Your task to perform on an android device: Clear the cart on costco.com. Search for "logitech g pro" on costco.com, select the first entry, add it to the cart, then select checkout. Image 0: 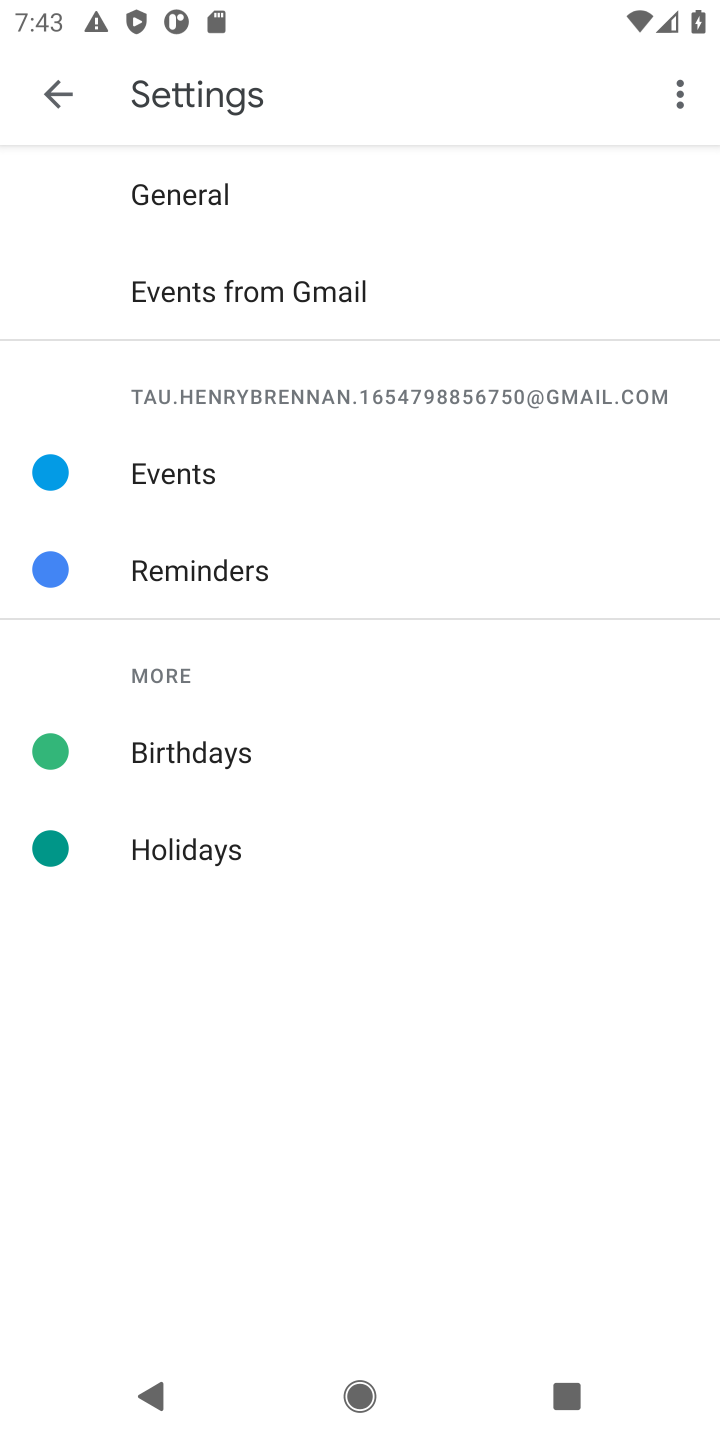
Step 0: press home button
Your task to perform on an android device: Clear the cart on costco.com. Search for "logitech g pro" on costco.com, select the first entry, add it to the cart, then select checkout. Image 1: 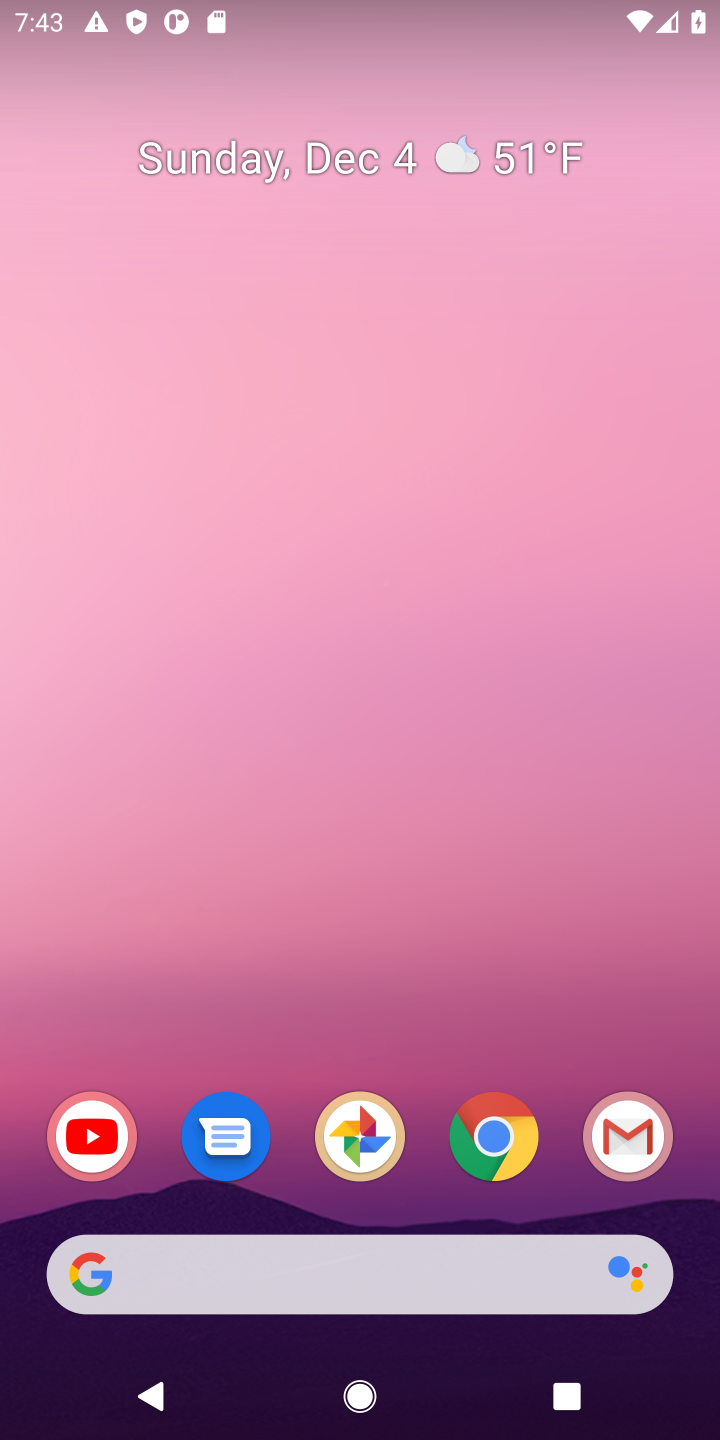
Step 1: click (488, 1130)
Your task to perform on an android device: Clear the cart on costco.com. Search for "logitech g pro" on costco.com, select the first entry, add it to the cart, then select checkout. Image 2: 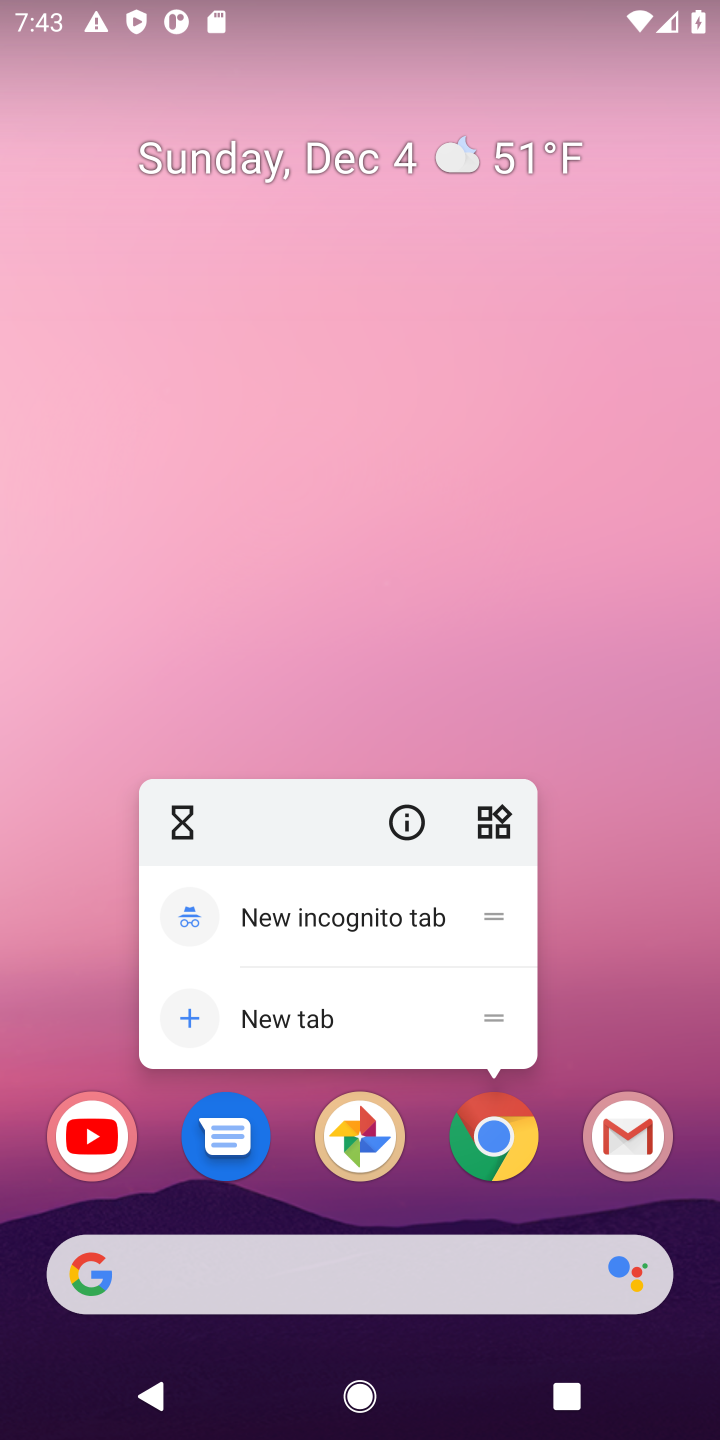
Step 2: click (488, 1132)
Your task to perform on an android device: Clear the cart on costco.com. Search for "logitech g pro" on costco.com, select the first entry, add it to the cart, then select checkout. Image 3: 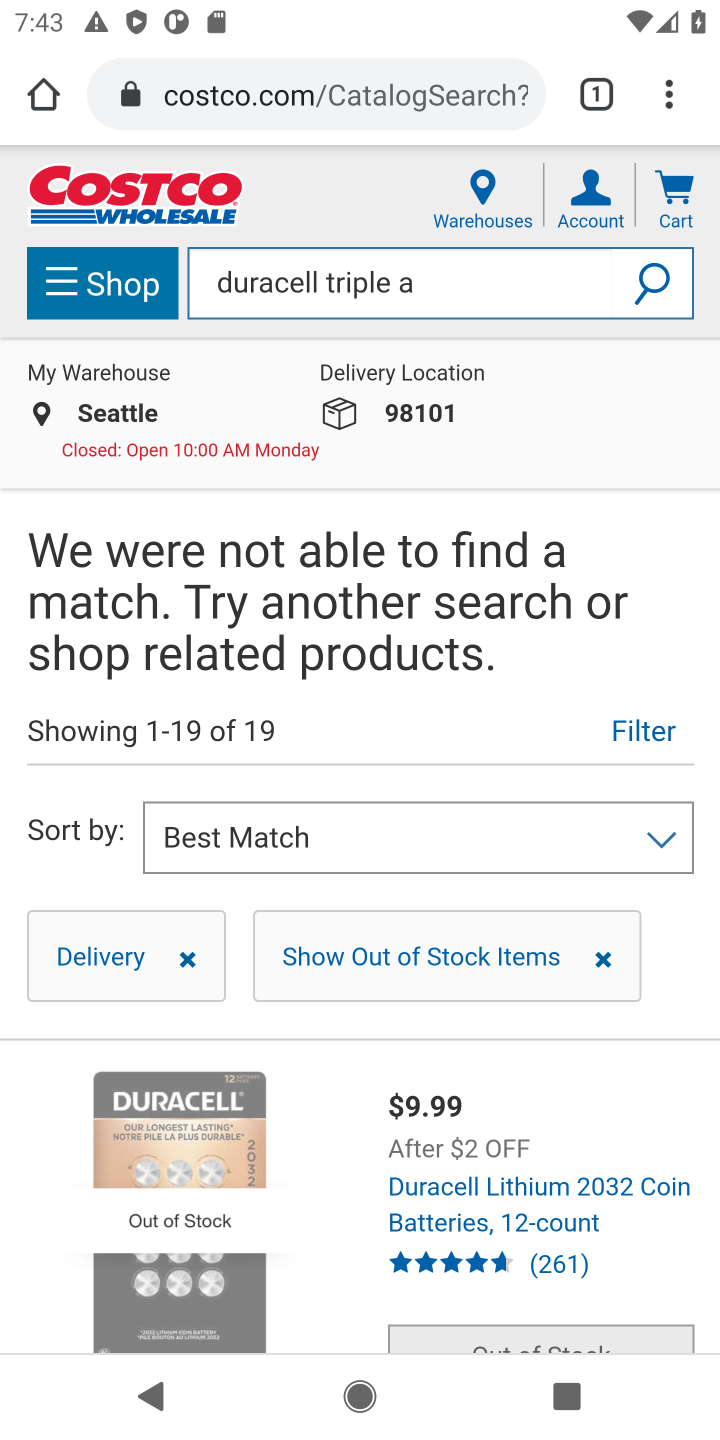
Step 3: click (677, 192)
Your task to perform on an android device: Clear the cart on costco.com. Search for "logitech g pro" on costco.com, select the first entry, add it to the cart, then select checkout. Image 4: 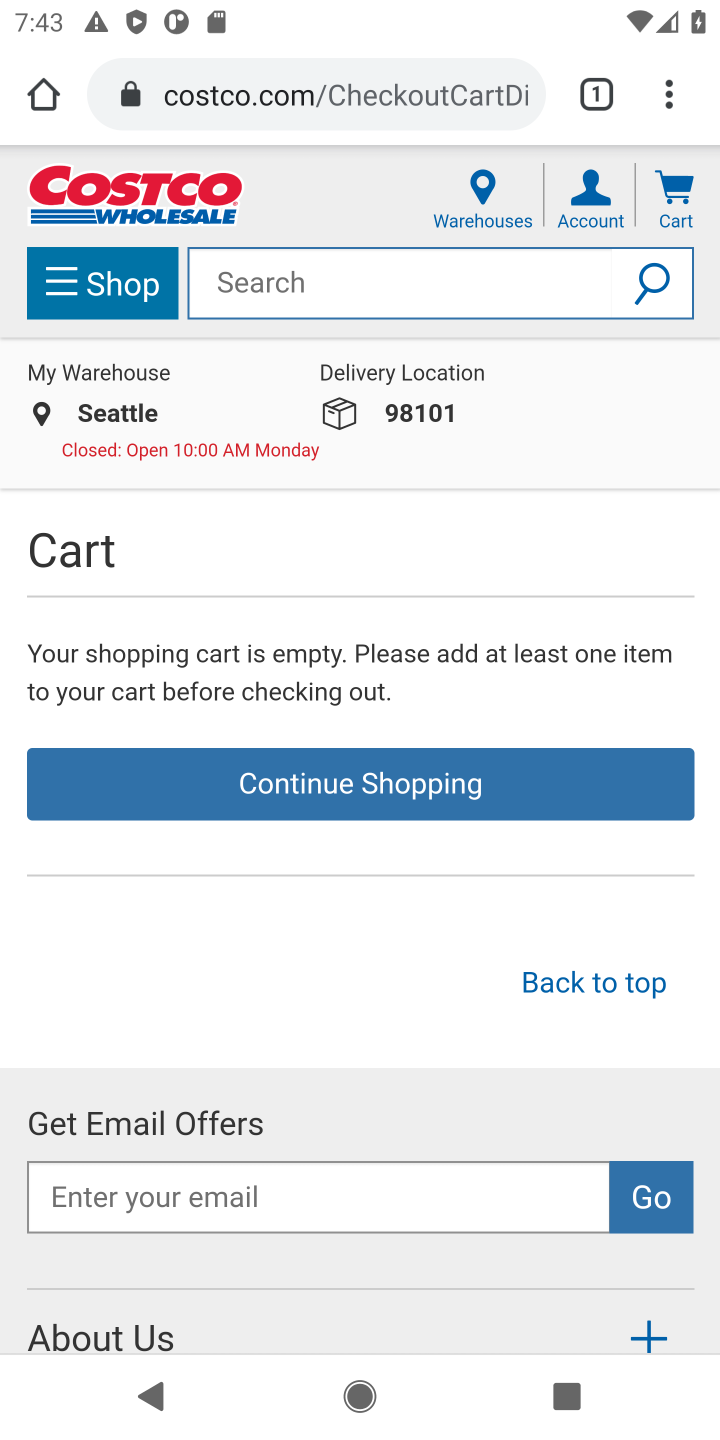
Step 4: click (524, 278)
Your task to perform on an android device: Clear the cart on costco.com. Search for "logitech g pro" on costco.com, select the first entry, add it to the cart, then select checkout. Image 5: 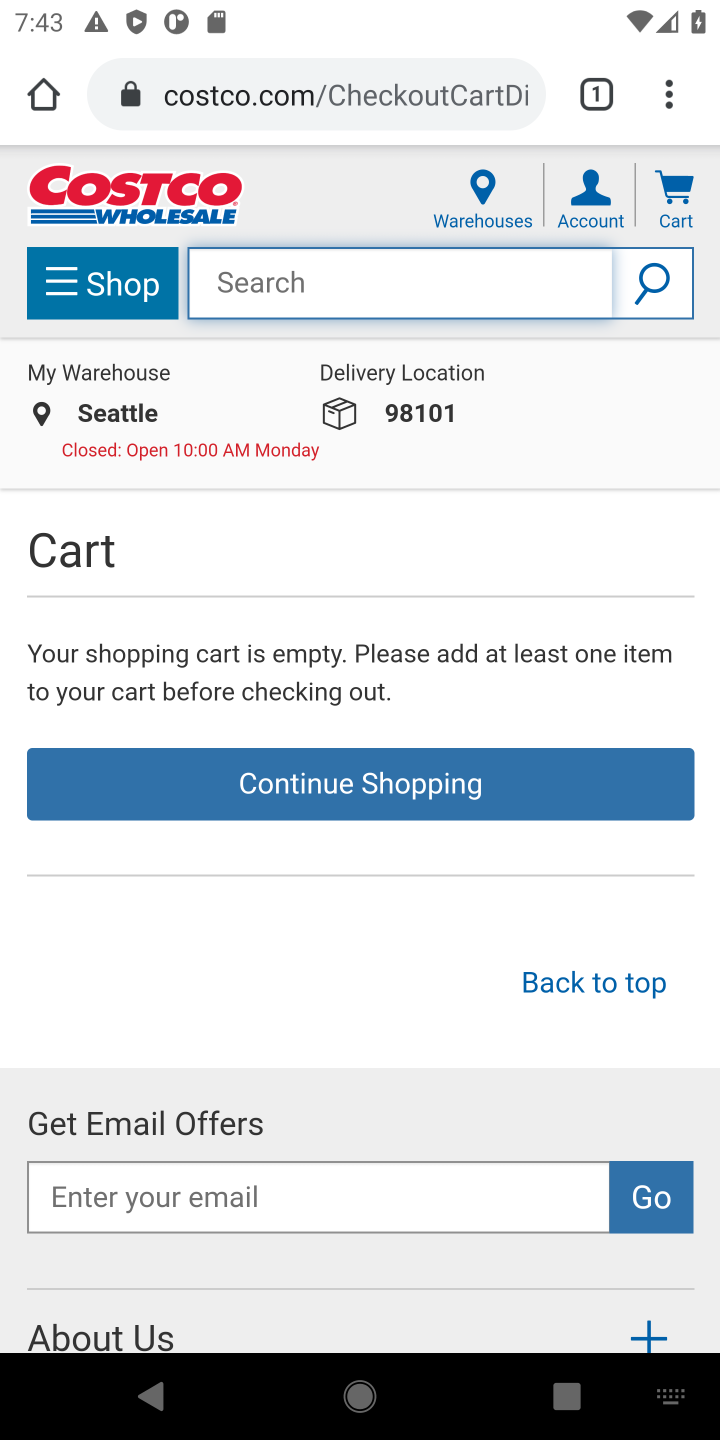
Step 5: type "logitech g pro"
Your task to perform on an android device: Clear the cart on costco.com. Search for "logitech g pro" on costco.com, select the first entry, add it to the cart, then select checkout. Image 6: 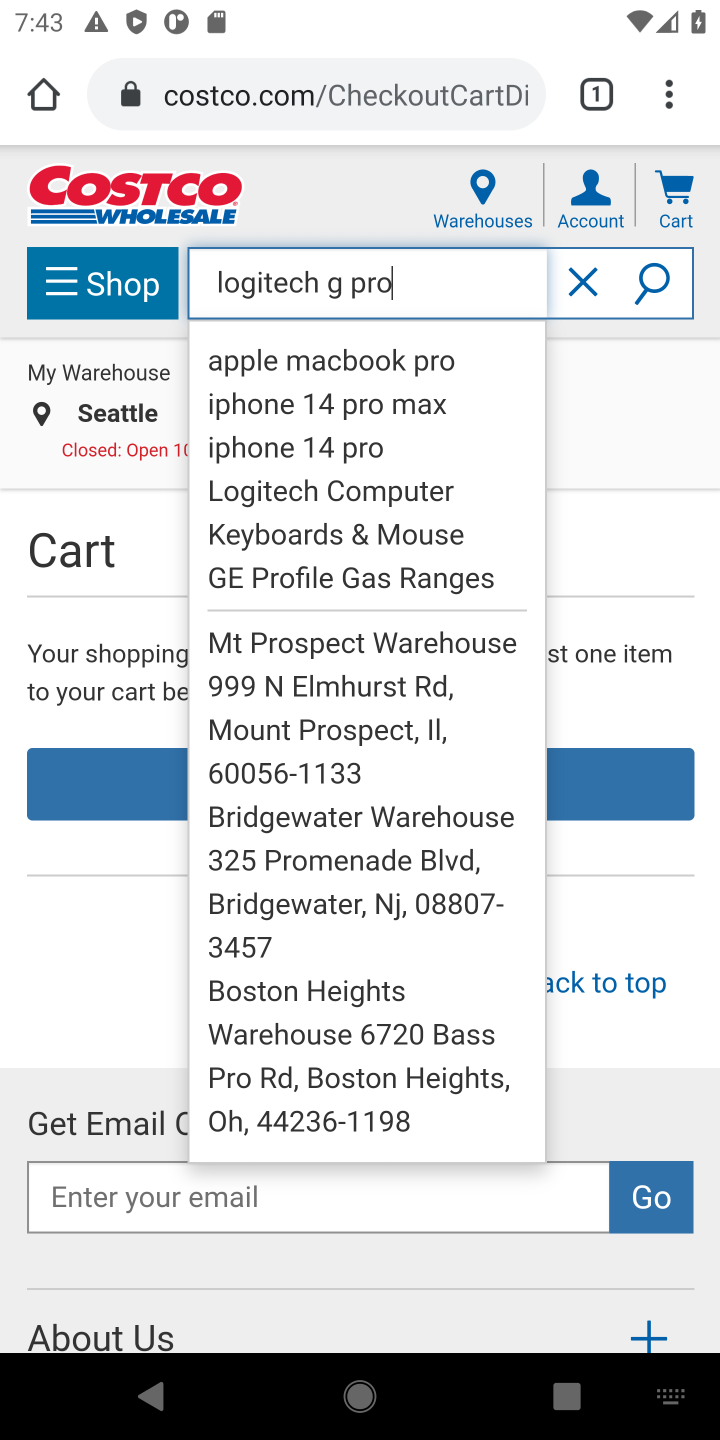
Step 6: click (658, 269)
Your task to perform on an android device: Clear the cart on costco.com. Search for "logitech g pro" on costco.com, select the first entry, add it to the cart, then select checkout. Image 7: 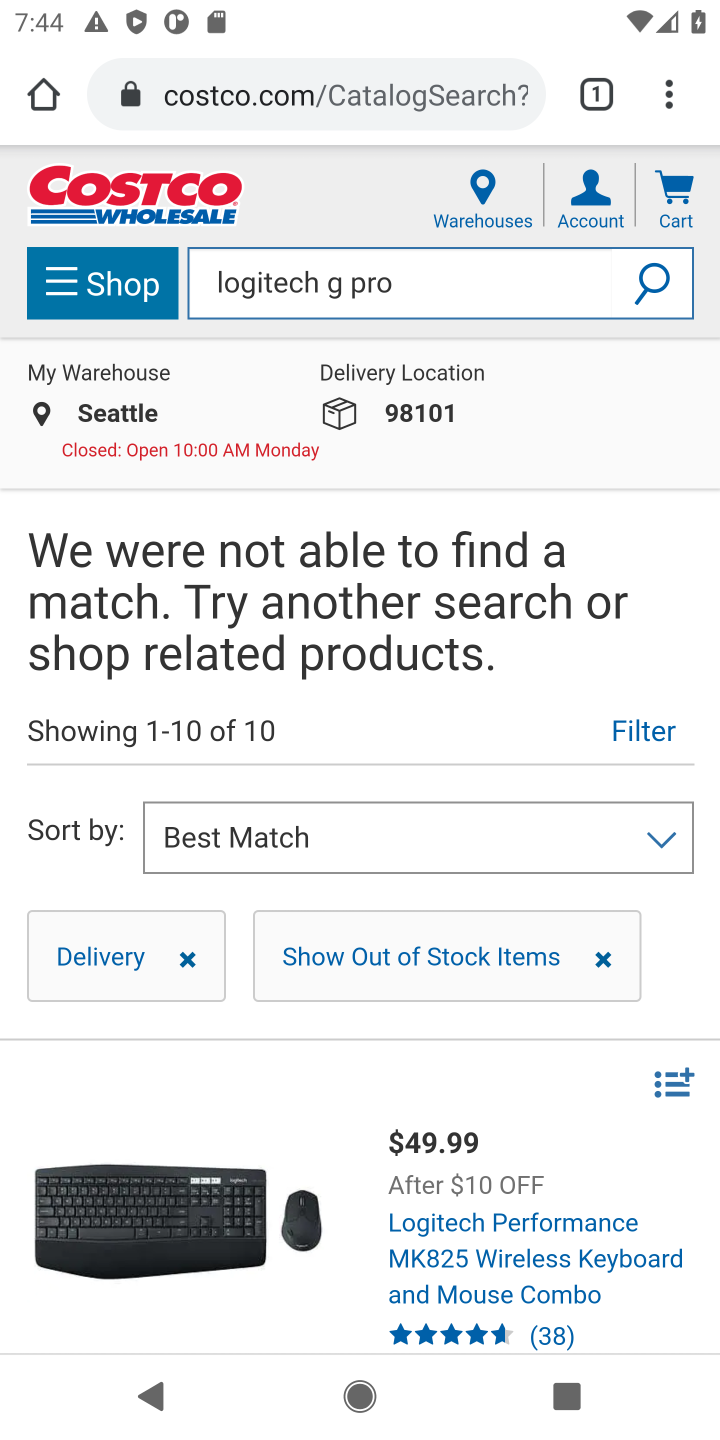
Step 7: task complete